Your task to perform on an android device: Open my contact list Image 0: 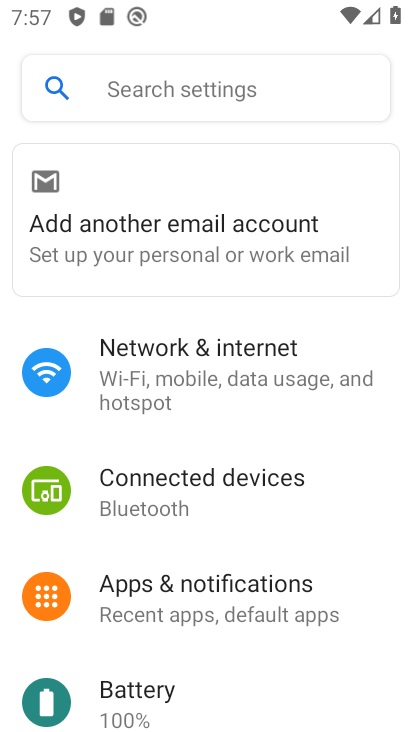
Step 0: press home button
Your task to perform on an android device: Open my contact list Image 1: 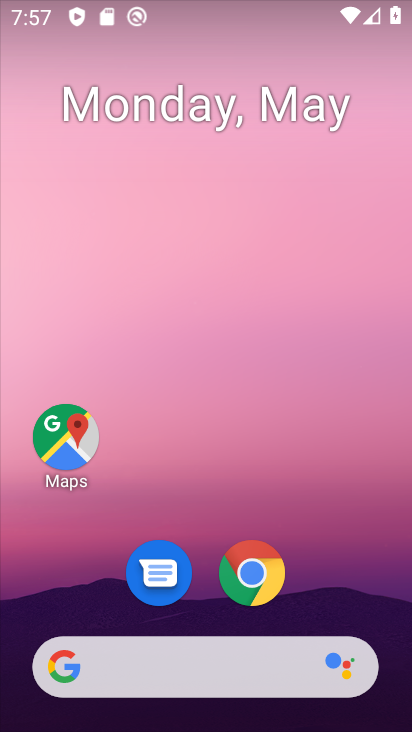
Step 1: drag from (65, 634) to (164, 134)
Your task to perform on an android device: Open my contact list Image 2: 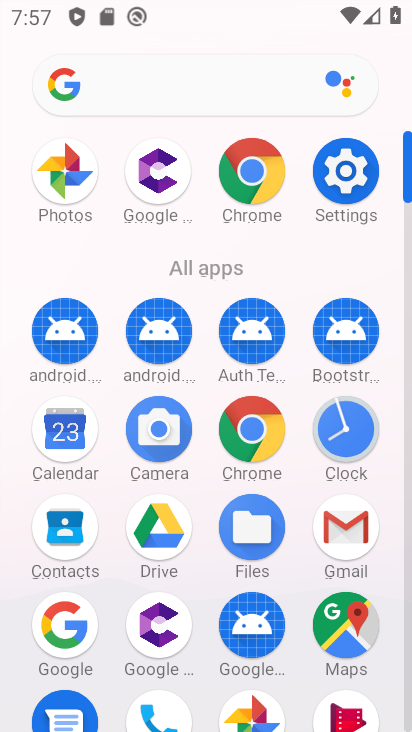
Step 2: click (64, 548)
Your task to perform on an android device: Open my contact list Image 3: 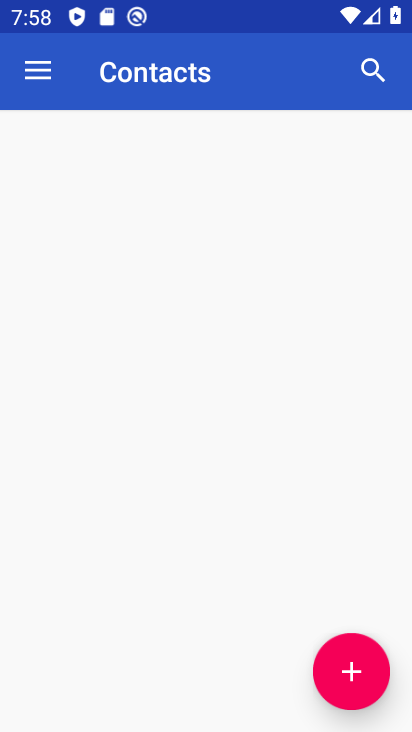
Step 3: task complete